Your task to perform on an android device: Do I have any events this weekend? Image 0: 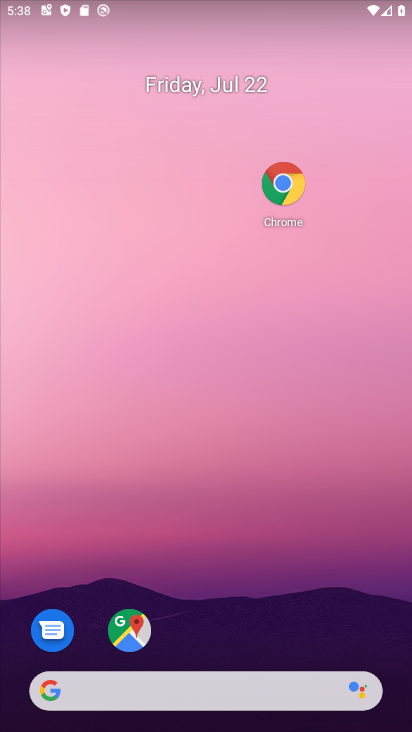
Step 0: drag from (192, 599) to (221, 21)
Your task to perform on an android device: Do I have any events this weekend? Image 1: 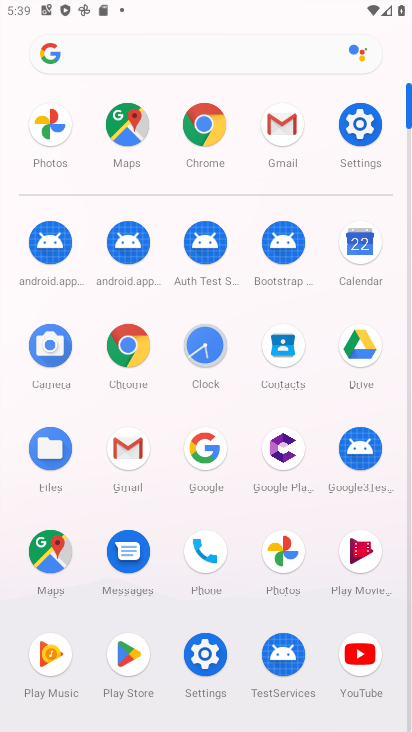
Step 1: click (366, 252)
Your task to perform on an android device: Do I have any events this weekend? Image 2: 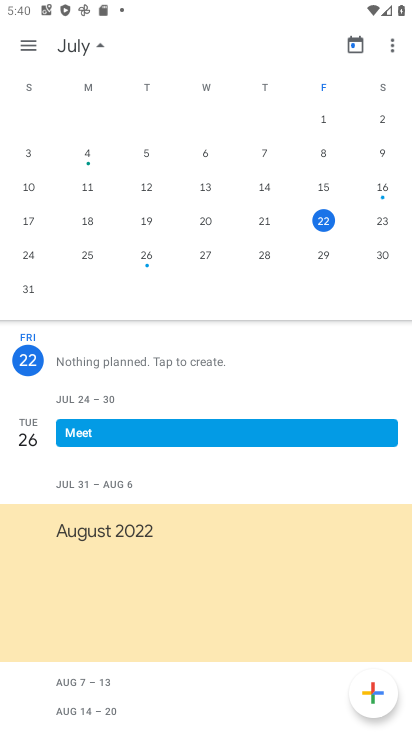
Step 2: click (25, 41)
Your task to perform on an android device: Do I have any events this weekend? Image 3: 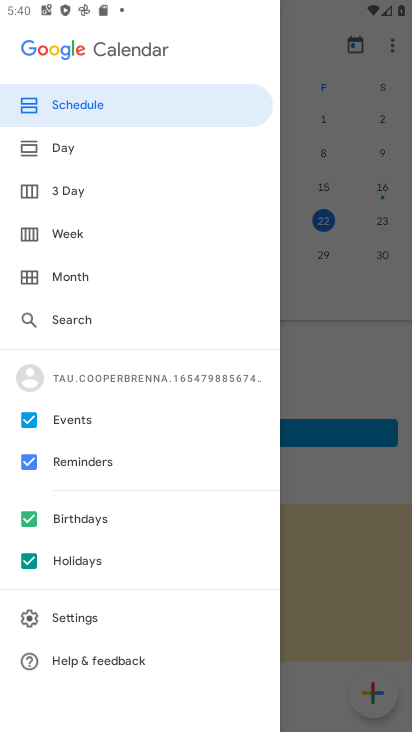
Step 3: click (77, 229)
Your task to perform on an android device: Do I have any events this weekend? Image 4: 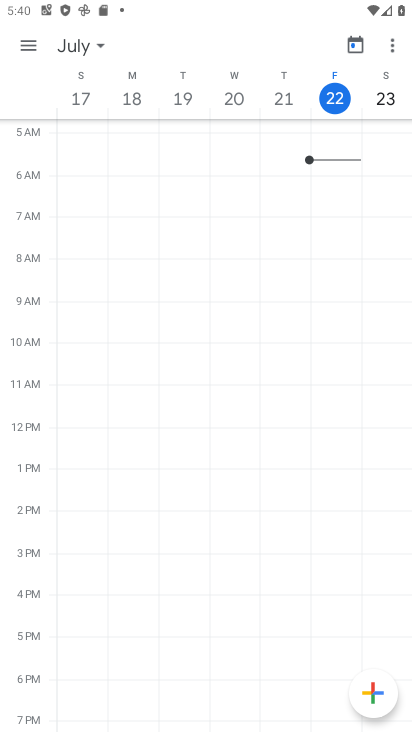
Step 4: task complete